Your task to perform on an android device: What is the news today? Image 0: 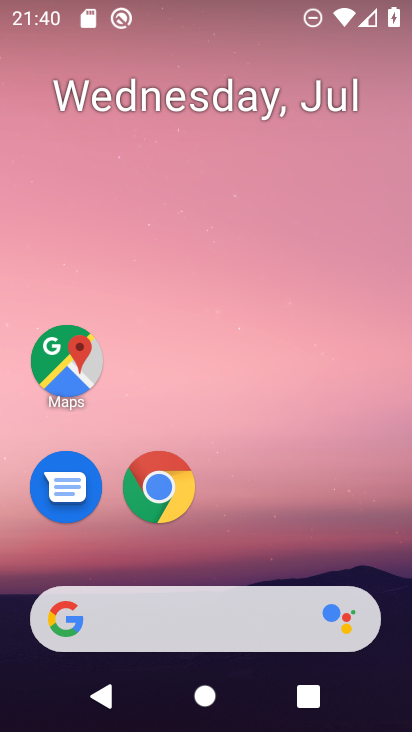
Step 0: drag from (3, 206) to (410, 464)
Your task to perform on an android device: What is the news today? Image 1: 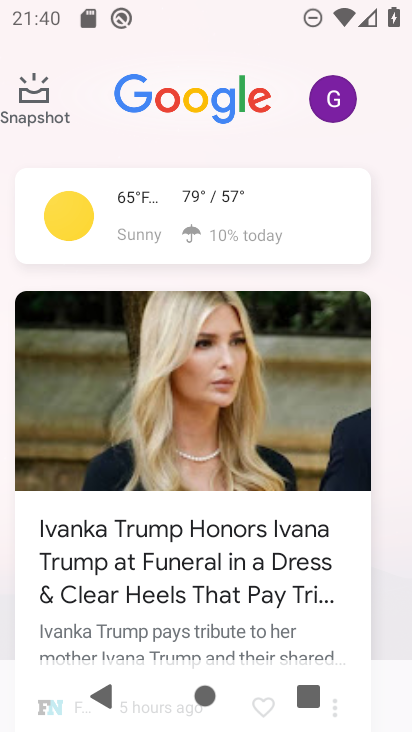
Step 1: task complete